Your task to perform on an android device: toggle airplane mode Image 0: 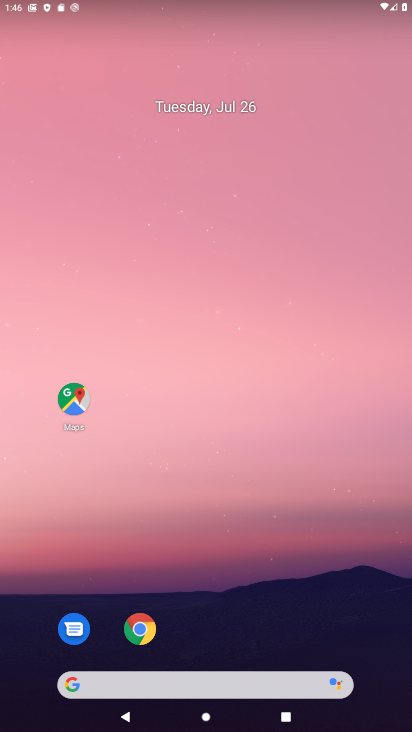
Step 0: drag from (232, 621) to (236, 256)
Your task to perform on an android device: toggle airplane mode Image 1: 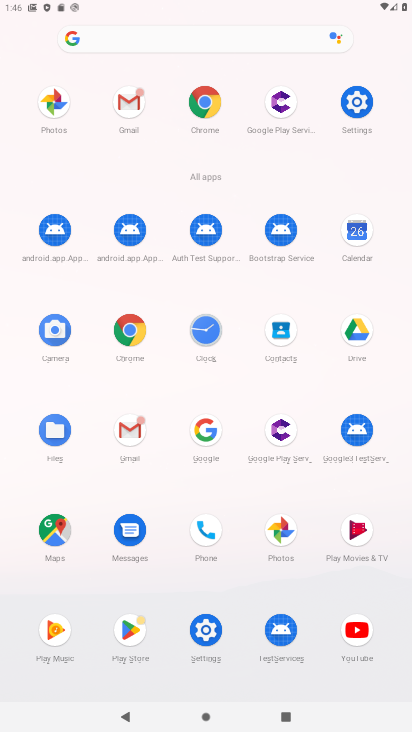
Step 1: click (361, 99)
Your task to perform on an android device: toggle airplane mode Image 2: 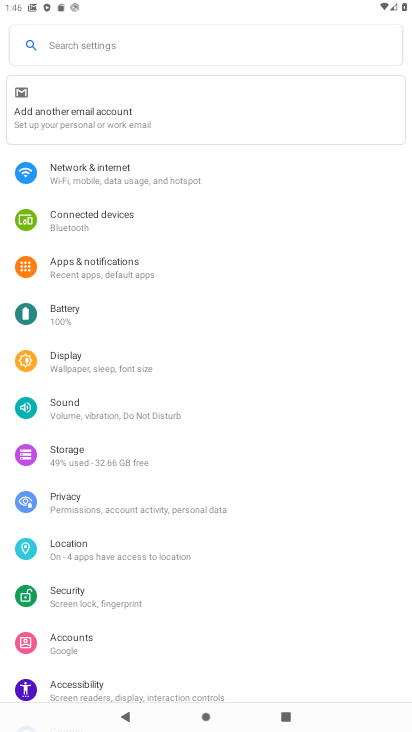
Step 2: click (82, 170)
Your task to perform on an android device: toggle airplane mode Image 3: 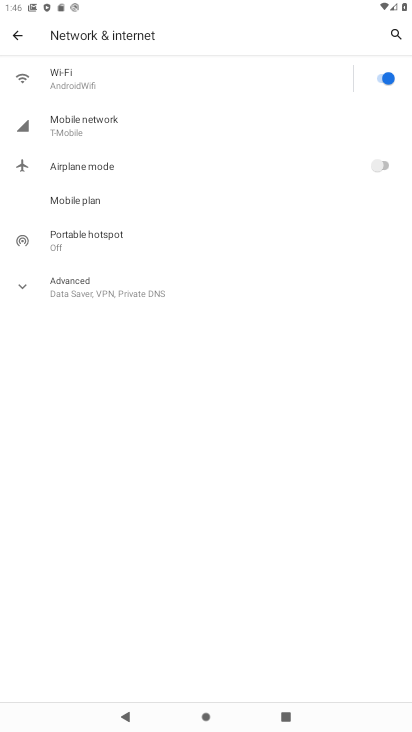
Step 3: click (385, 165)
Your task to perform on an android device: toggle airplane mode Image 4: 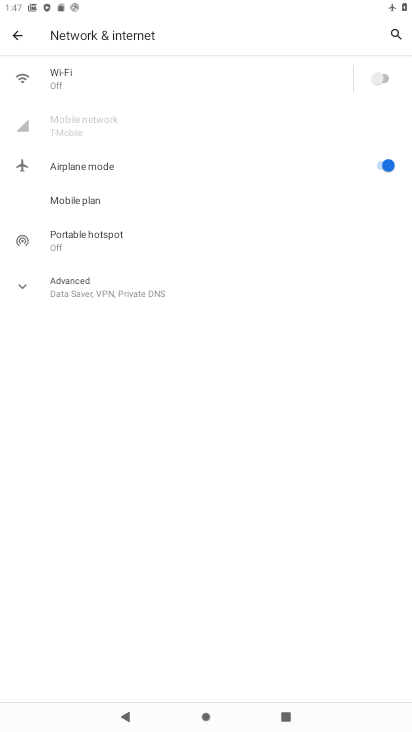
Step 4: task complete